Your task to perform on an android device: Go to notification settings Image 0: 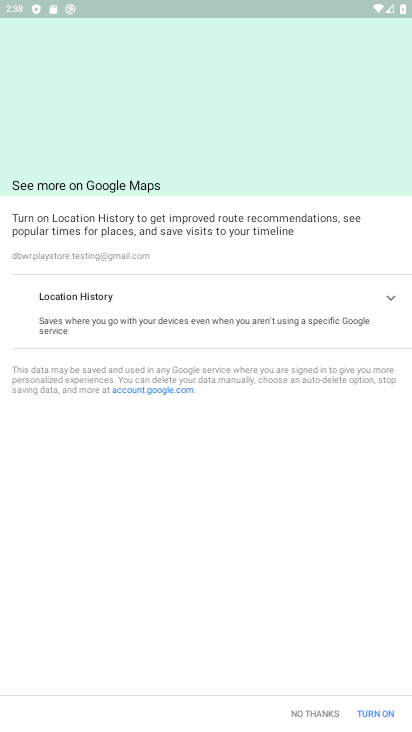
Step 0: press home button
Your task to perform on an android device: Go to notification settings Image 1: 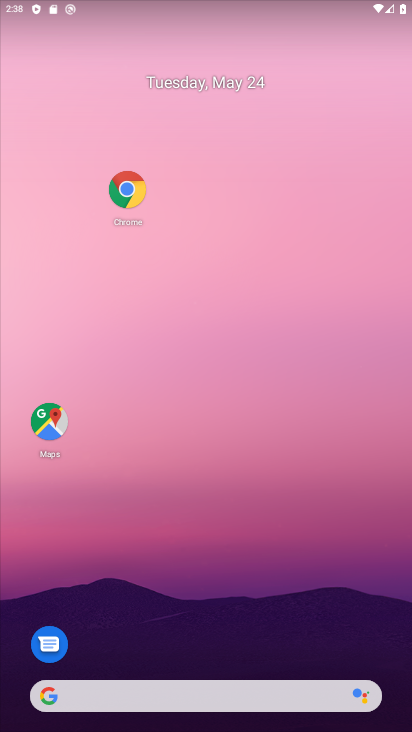
Step 1: drag from (238, 588) to (263, 34)
Your task to perform on an android device: Go to notification settings Image 2: 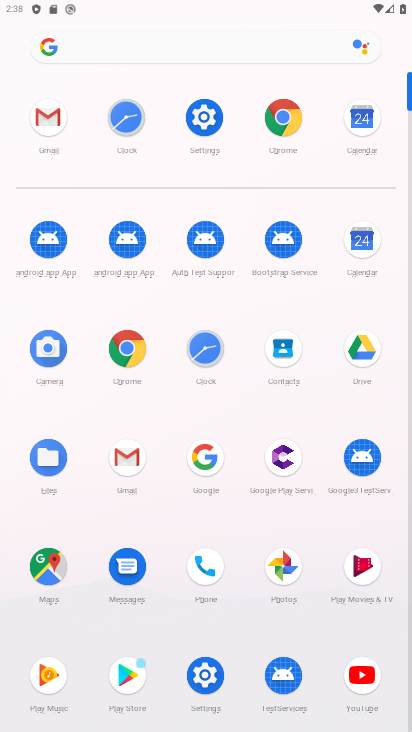
Step 2: click (207, 120)
Your task to perform on an android device: Go to notification settings Image 3: 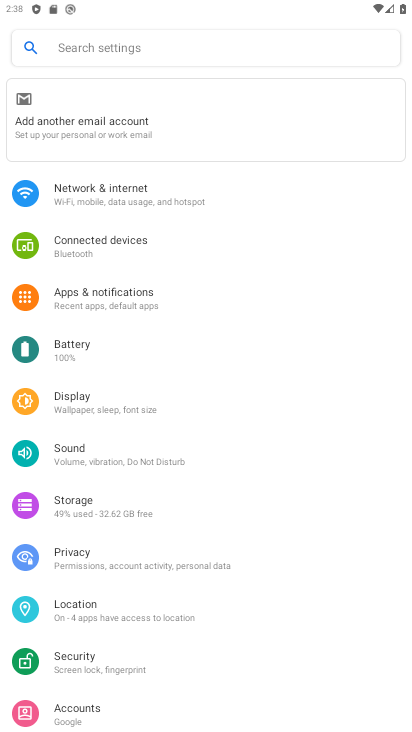
Step 3: click (114, 289)
Your task to perform on an android device: Go to notification settings Image 4: 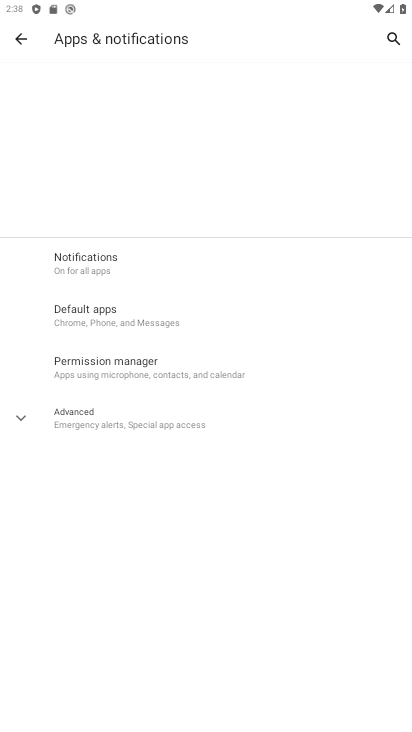
Step 4: click (106, 275)
Your task to perform on an android device: Go to notification settings Image 5: 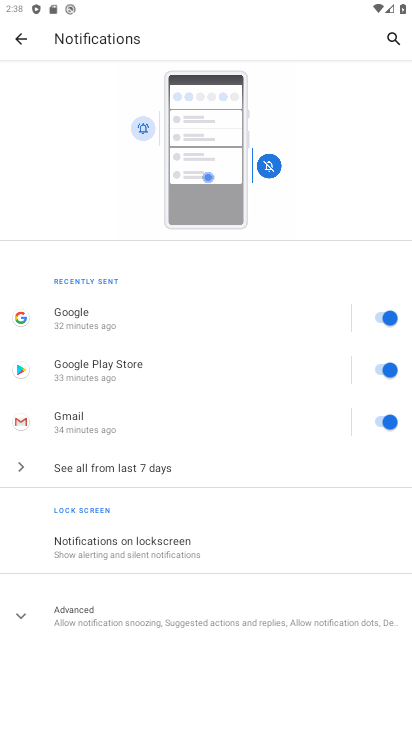
Step 5: drag from (288, 537) to (317, 188)
Your task to perform on an android device: Go to notification settings Image 6: 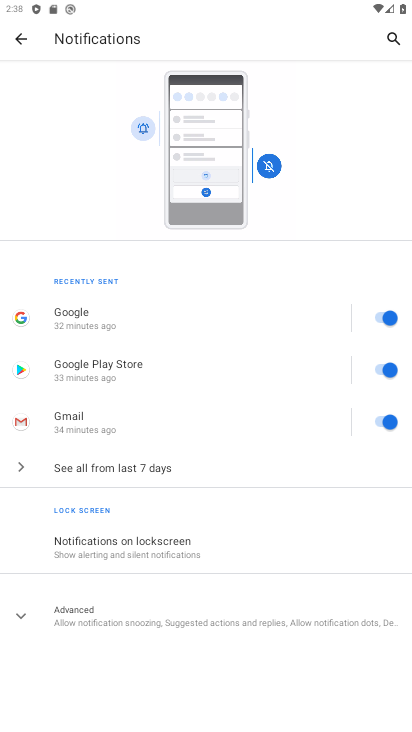
Step 6: click (110, 608)
Your task to perform on an android device: Go to notification settings Image 7: 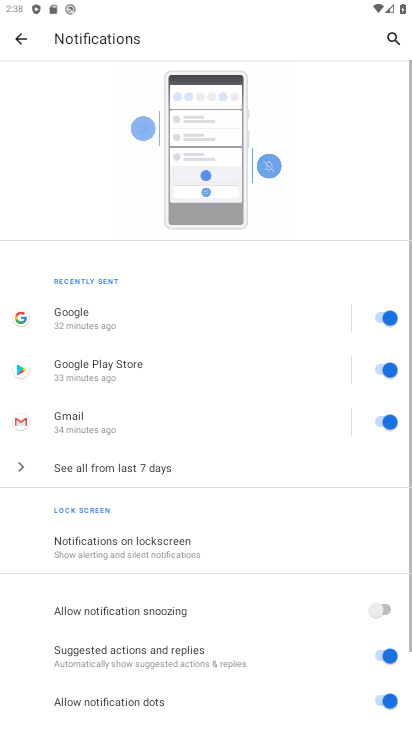
Step 7: drag from (306, 539) to (300, 133)
Your task to perform on an android device: Go to notification settings Image 8: 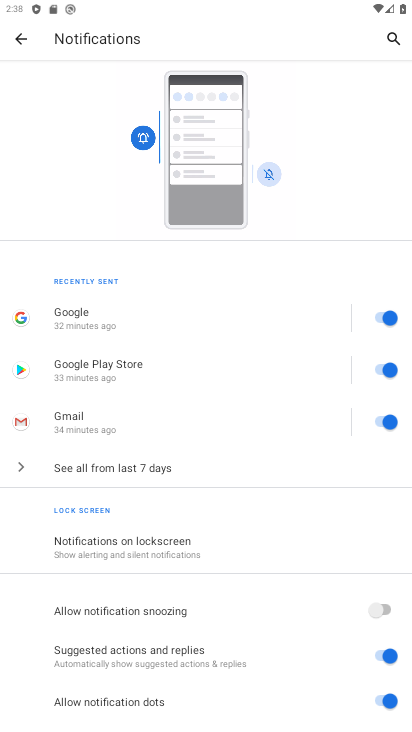
Step 8: click (383, 611)
Your task to perform on an android device: Go to notification settings Image 9: 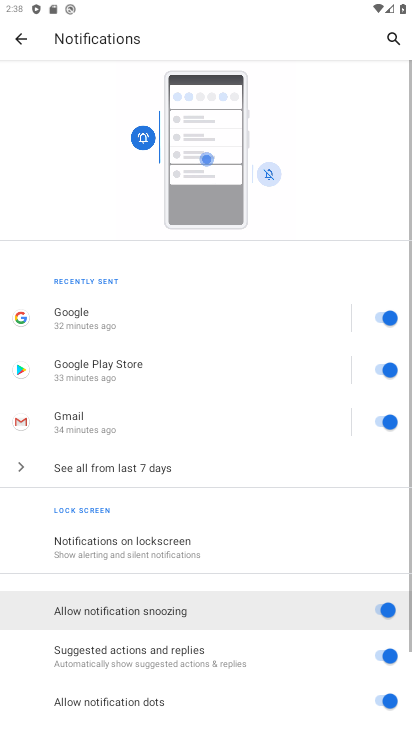
Step 9: click (392, 658)
Your task to perform on an android device: Go to notification settings Image 10: 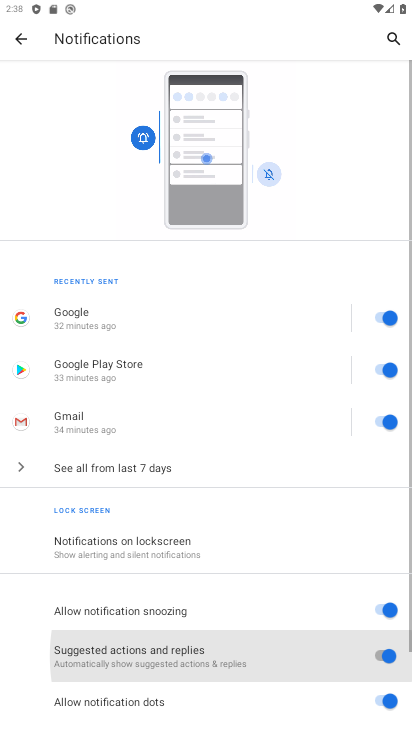
Step 10: click (391, 703)
Your task to perform on an android device: Go to notification settings Image 11: 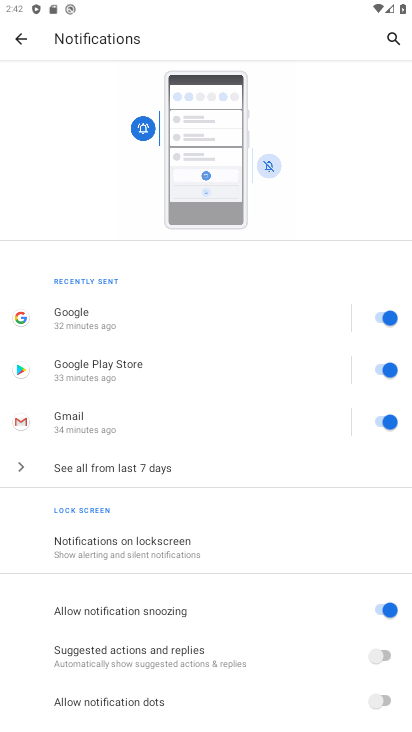
Step 11: task complete